Your task to perform on an android device: Show me productivity apps on the Play Store Image 0: 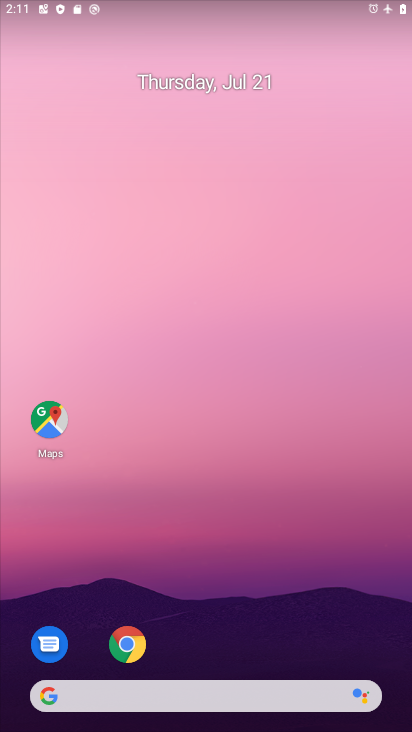
Step 0: drag from (159, 676) to (168, 208)
Your task to perform on an android device: Show me productivity apps on the Play Store Image 1: 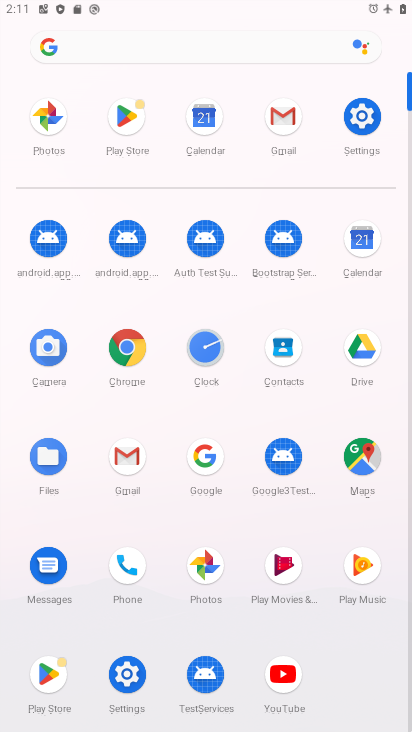
Step 1: click (44, 690)
Your task to perform on an android device: Show me productivity apps on the Play Store Image 2: 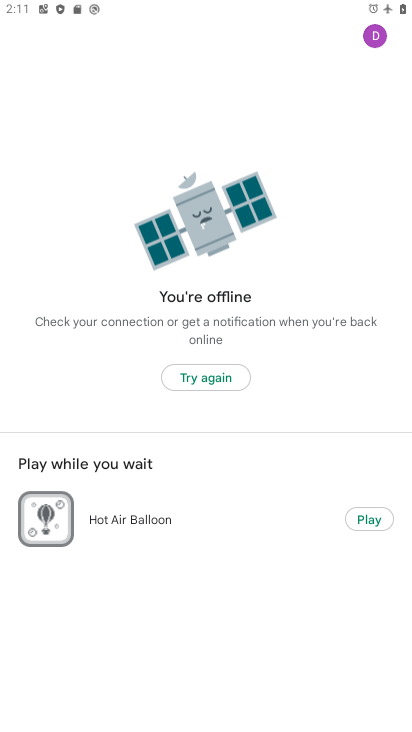
Step 2: click (206, 379)
Your task to perform on an android device: Show me productivity apps on the Play Store Image 3: 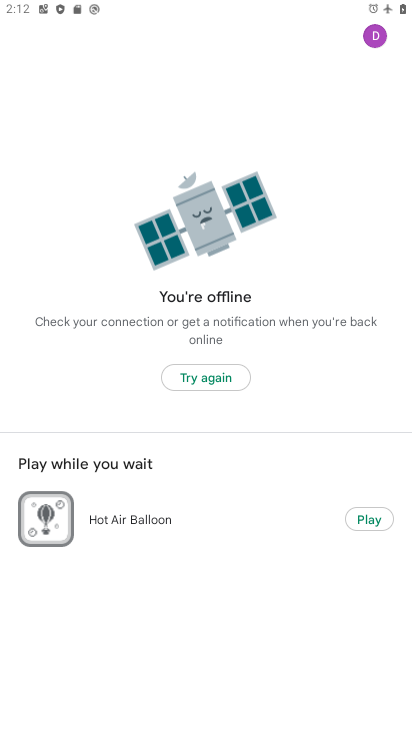
Step 3: task complete